Your task to perform on an android device: toggle sleep mode Image 0: 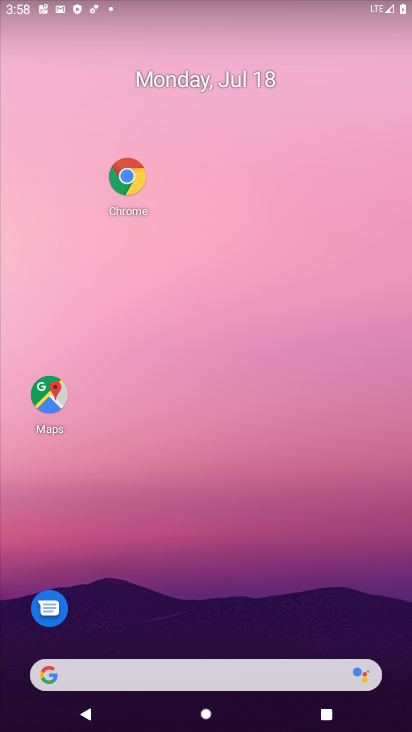
Step 0: drag from (218, 673) to (235, 212)
Your task to perform on an android device: toggle sleep mode Image 1: 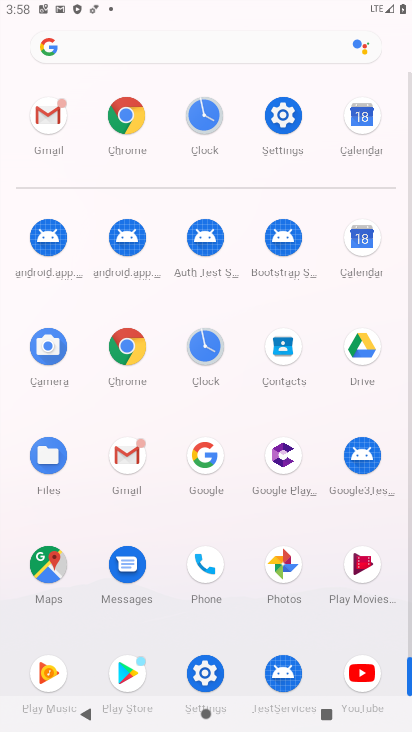
Step 1: click (278, 136)
Your task to perform on an android device: toggle sleep mode Image 2: 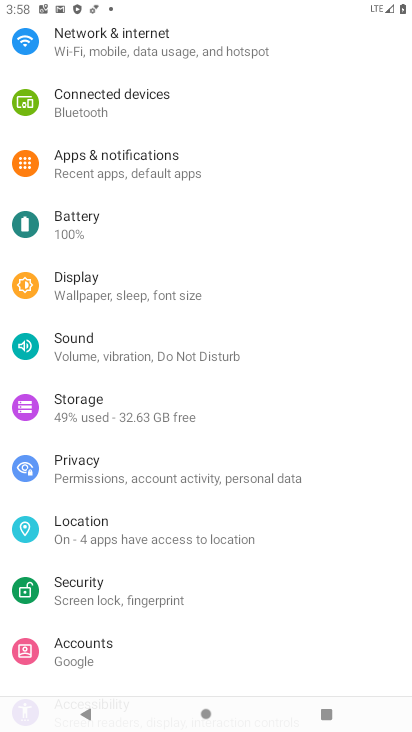
Step 2: drag from (152, 251) to (141, 444)
Your task to perform on an android device: toggle sleep mode Image 3: 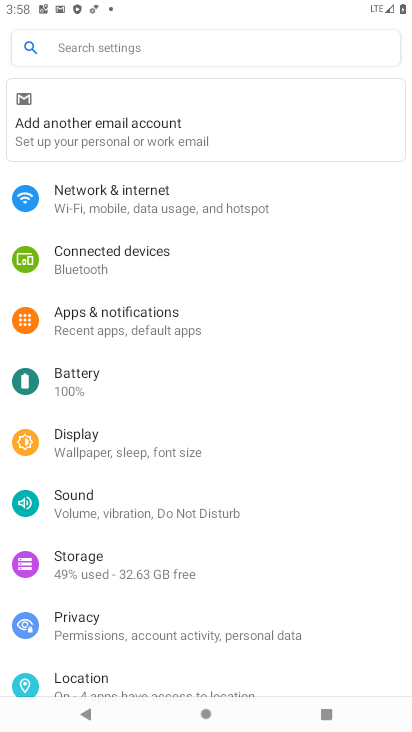
Step 3: click (122, 452)
Your task to perform on an android device: toggle sleep mode Image 4: 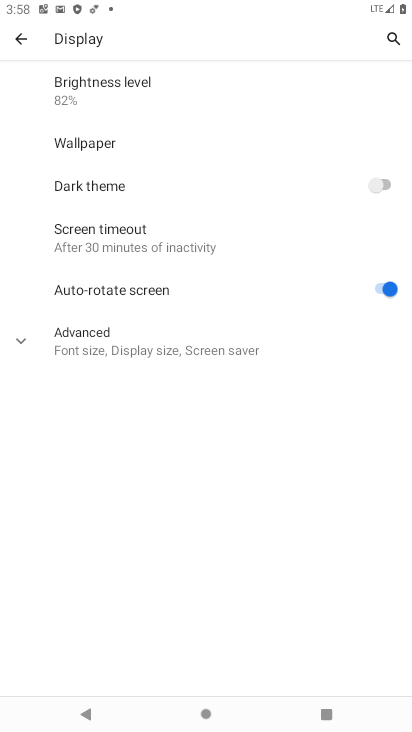
Step 4: click (121, 347)
Your task to perform on an android device: toggle sleep mode Image 5: 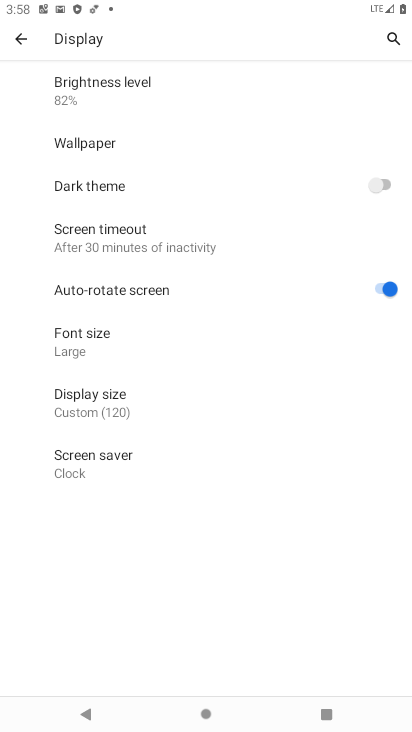
Step 5: task complete